Your task to perform on an android device: What is the recent news? Image 0: 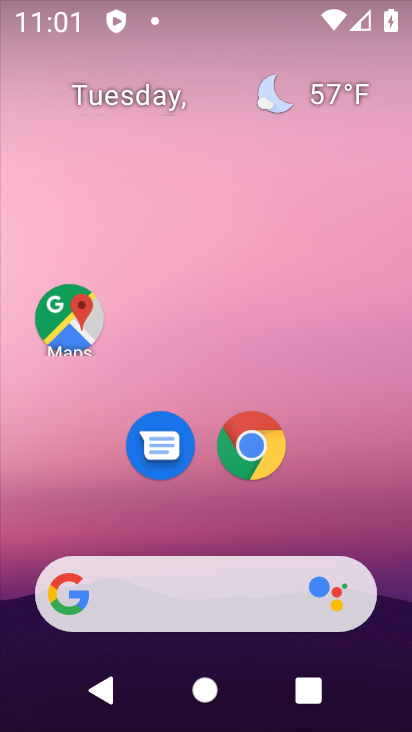
Step 0: drag from (46, 235) to (390, 268)
Your task to perform on an android device: What is the recent news? Image 1: 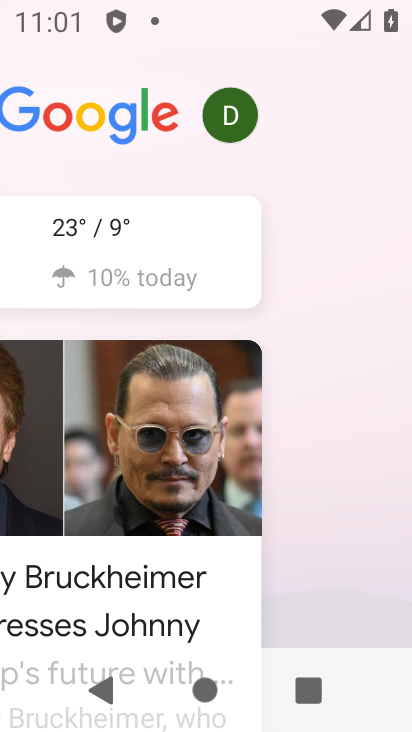
Step 1: task complete